Your task to perform on an android device: search for starred emails in the gmail app Image 0: 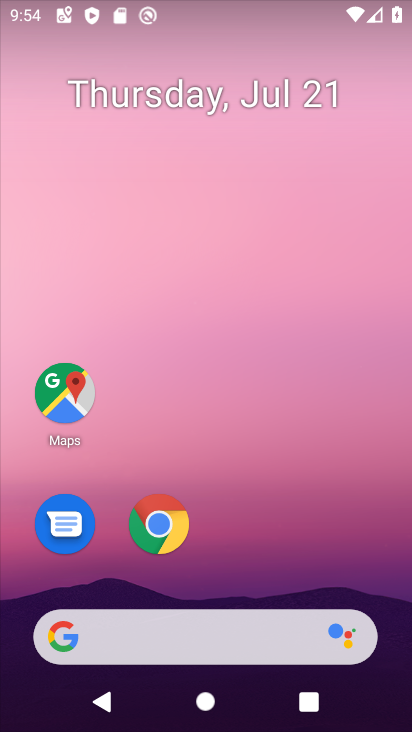
Step 0: press home button
Your task to perform on an android device: search for starred emails in the gmail app Image 1: 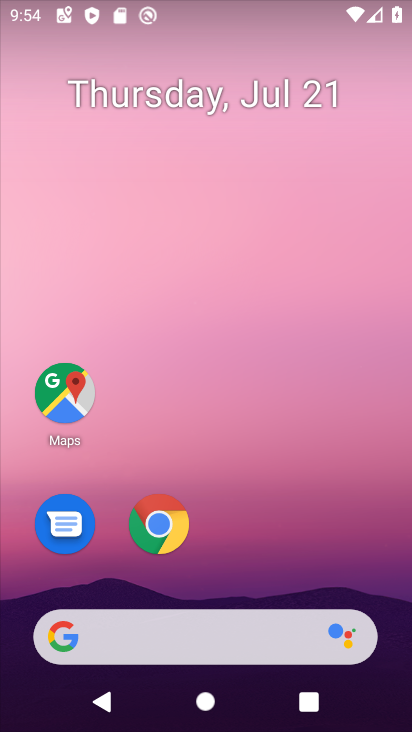
Step 1: drag from (175, 635) to (220, 17)
Your task to perform on an android device: search for starred emails in the gmail app Image 2: 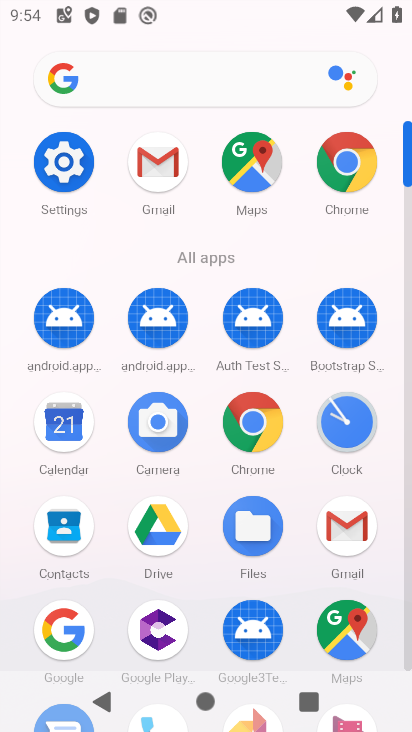
Step 2: click (163, 167)
Your task to perform on an android device: search for starred emails in the gmail app Image 3: 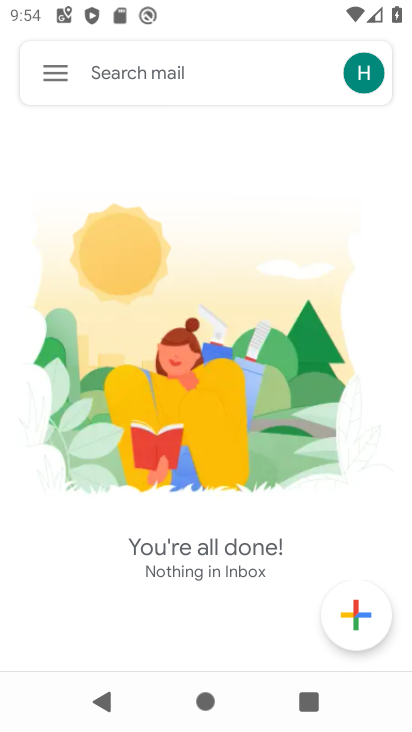
Step 3: click (63, 74)
Your task to perform on an android device: search for starred emails in the gmail app Image 4: 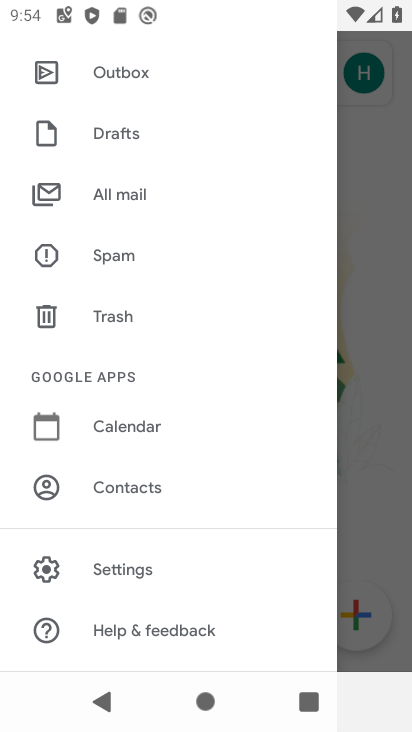
Step 4: drag from (191, 136) to (161, 620)
Your task to perform on an android device: search for starred emails in the gmail app Image 5: 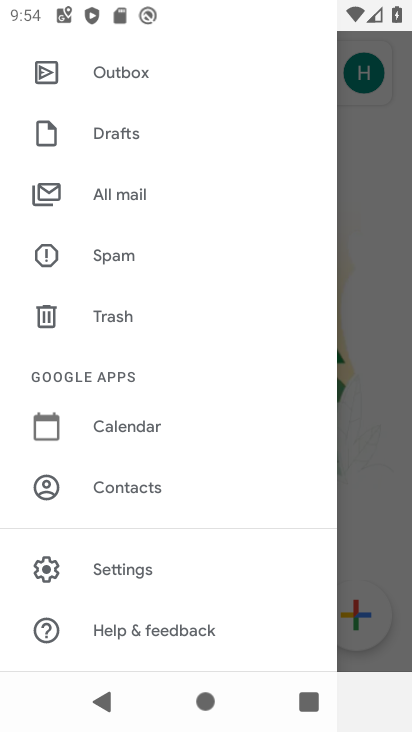
Step 5: drag from (118, 101) to (141, 583)
Your task to perform on an android device: search for starred emails in the gmail app Image 6: 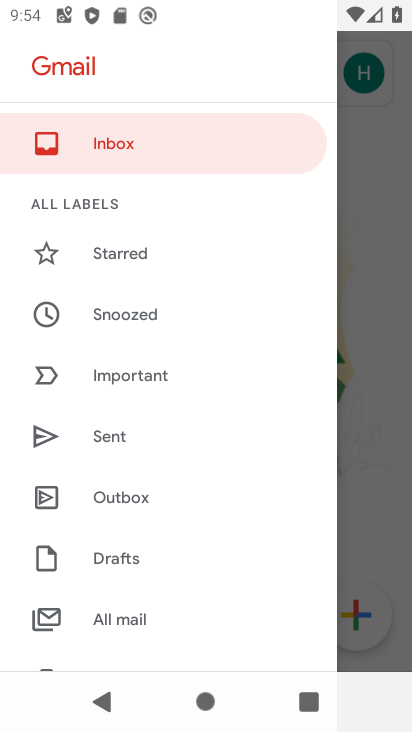
Step 6: drag from (108, 95) to (125, 423)
Your task to perform on an android device: search for starred emails in the gmail app Image 7: 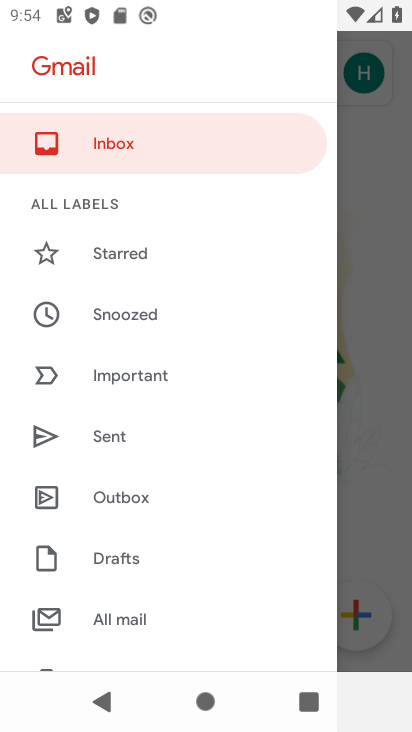
Step 7: click (132, 256)
Your task to perform on an android device: search for starred emails in the gmail app Image 8: 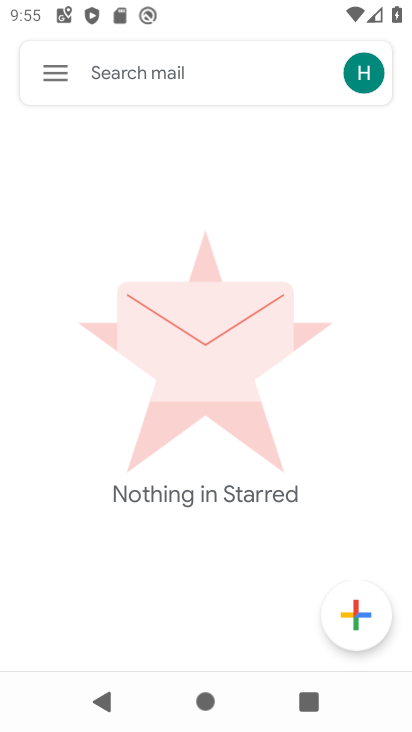
Step 8: task complete